Your task to perform on an android device: open device folders in google photos Image 0: 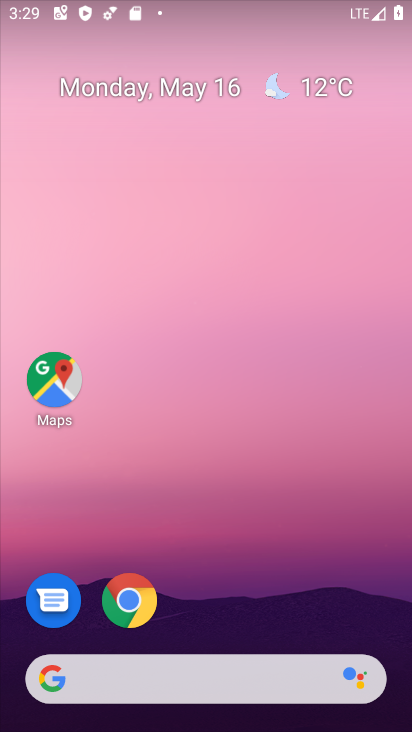
Step 0: drag from (311, 346) to (288, 38)
Your task to perform on an android device: open device folders in google photos Image 1: 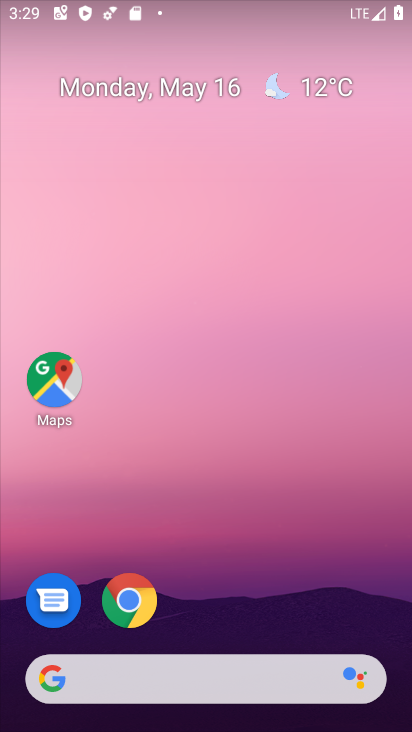
Step 1: drag from (296, 554) to (327, 13)
Your task to perform on an android device: open device folders in google photos Image 2: 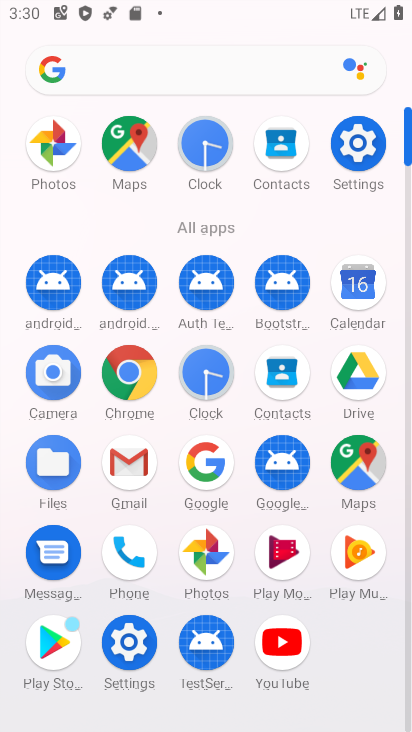
Step 2: click (219, 555)
Your task to perform on an android device: open device folders in google photos Image 3: 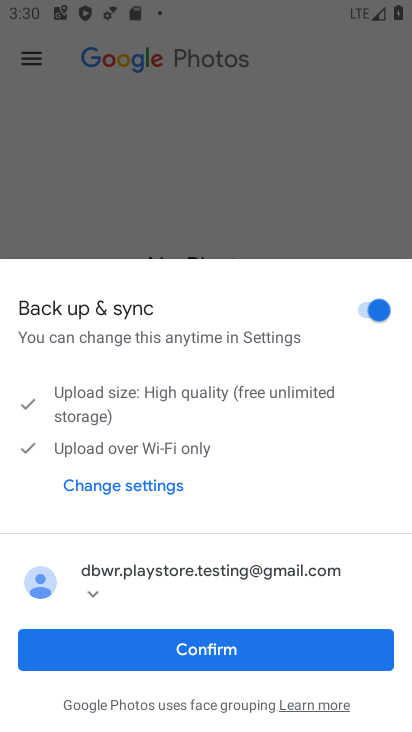
Step 3: click (292, 659)
Your task to perform on an android device: open device folders in google photos Image 4: 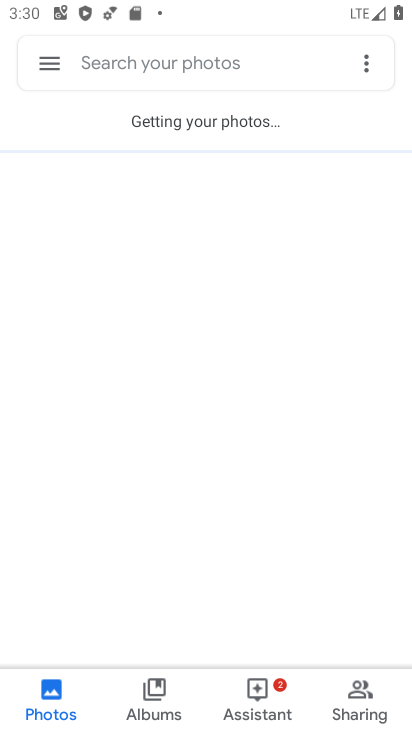
Step 4: click (54, 65)
Your task to perform on an android device: open device folders in google photos Image 5: 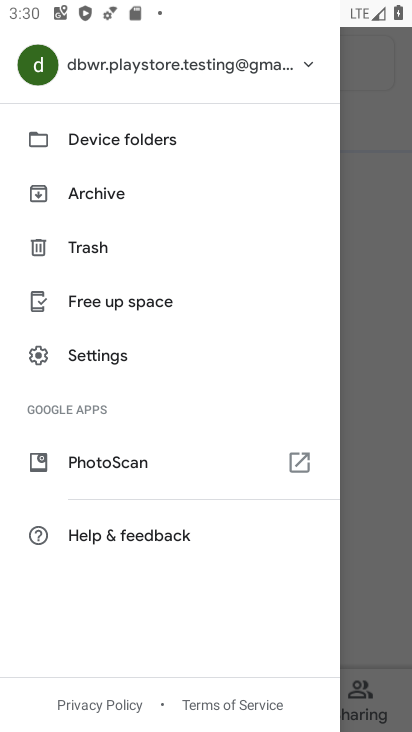
Step 5: click (114, 147)
Your task to perform on an android device: open device folders in google photos Image 6: 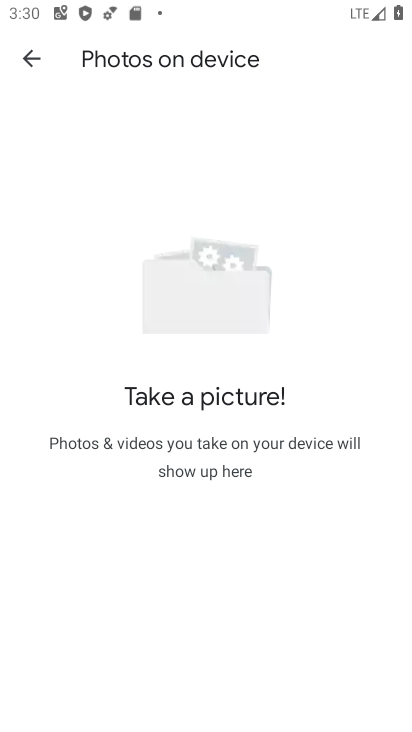
Step 6: task complete